Your task to perform on an android device: open app "Google News" (install if not already installed) Image 0: 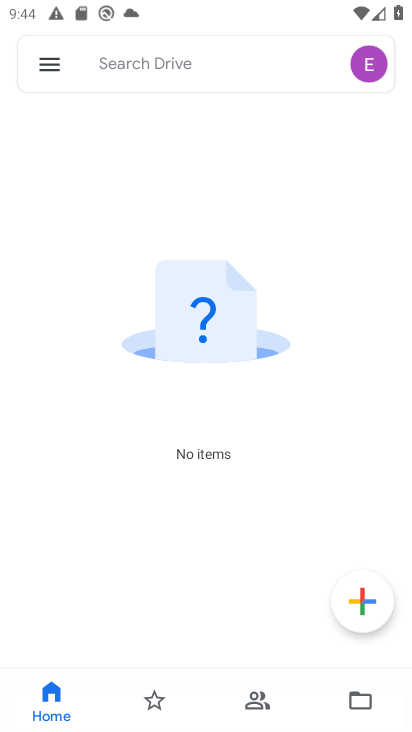
Step 0: press home button
Your task to perform on an android device: open app "Google News" (install if not already installed) Image 1: 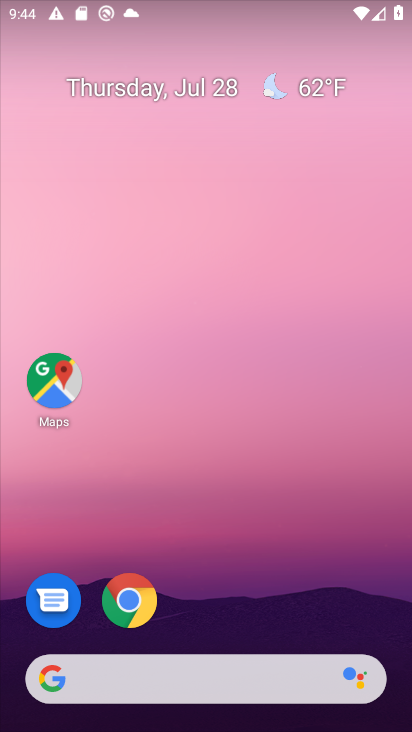
Step 1: drag from (218, 633) to (248, 11)
Your task to perform on an android device: open app "Google News" (install if not already installed) Image 2: 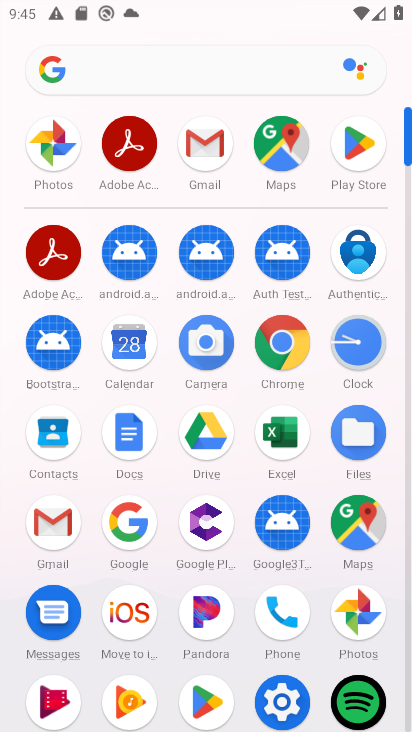
Step 2: click (345, 161)
Your task to perform on an android device: open app "Google News" (install if not already installed) Image 3: 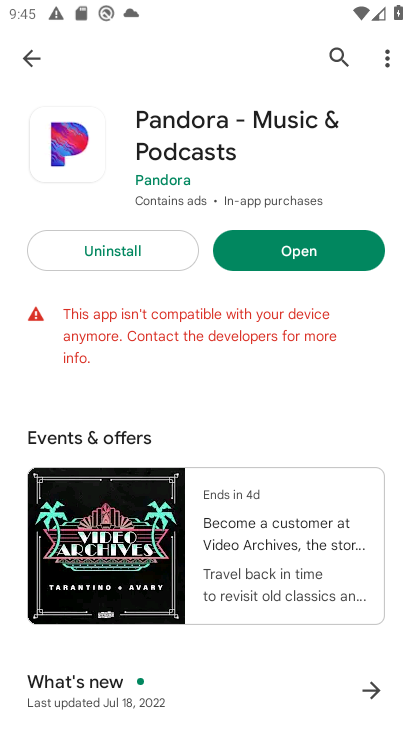
Step 3: click (335, 56)
Your task to perform on an android device: open app "Google News" (install if not already installed) Image 4: 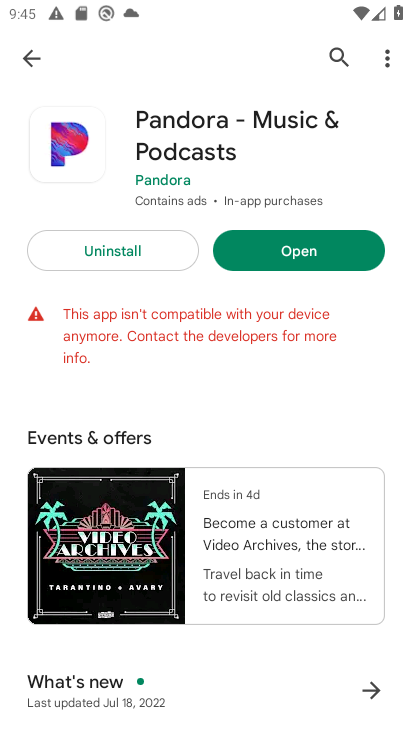
Step 4: click (331, 52)
Your task to perform on an android device: open app "Google News" (install if not already installed) Image 5: 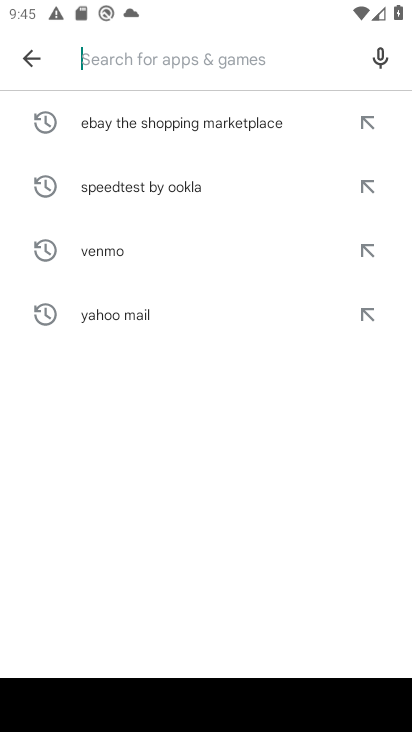
Step 5: click (240, 60)
Your task to perform on an android device: open app "Google News" (install if not already installed) Image 6: 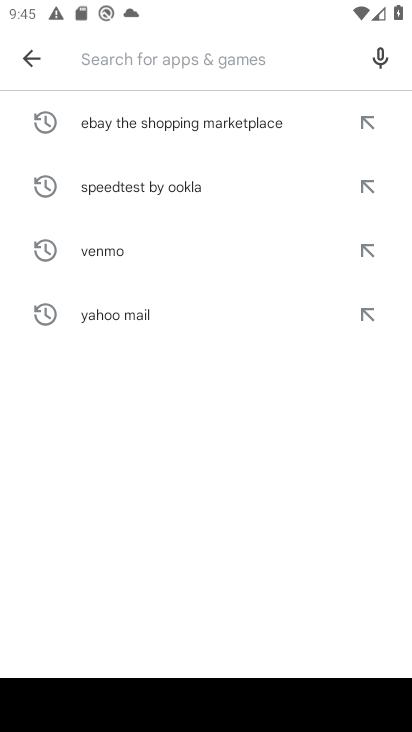
Step 6: type "Google News"
Your task to perform on an android device: open app "Google News" (install if not already installed) Image 7: 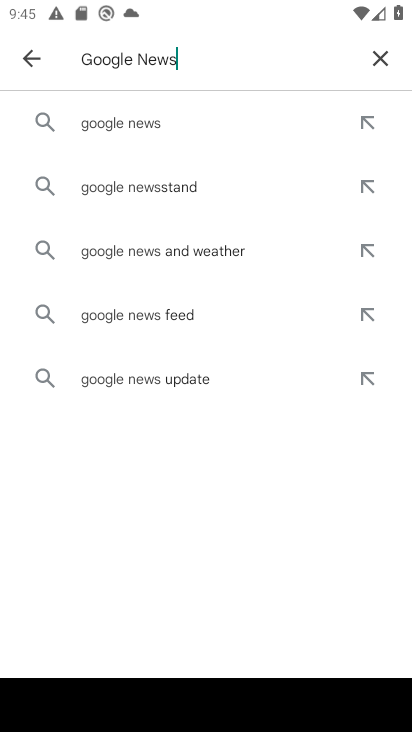
Step 7: click (130, 123)
Your task to perform on an android device: open app "Google News" (install if not already installed) Image 8: 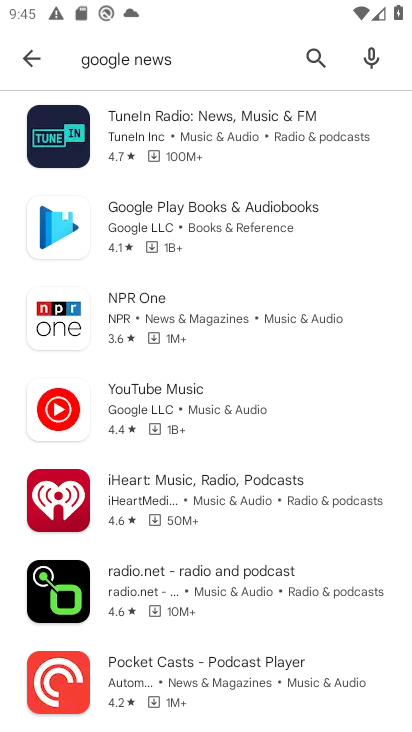
Step 8: task complete